Your task to perform on an android device: toggle data saver in the chrome app Image 0: 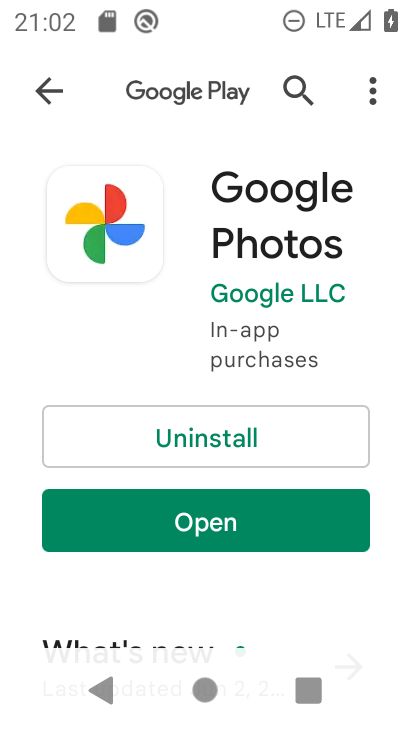
Step 0: press home button
Your task to perform on an android device: toggle data saver in the chrome app Image 1: 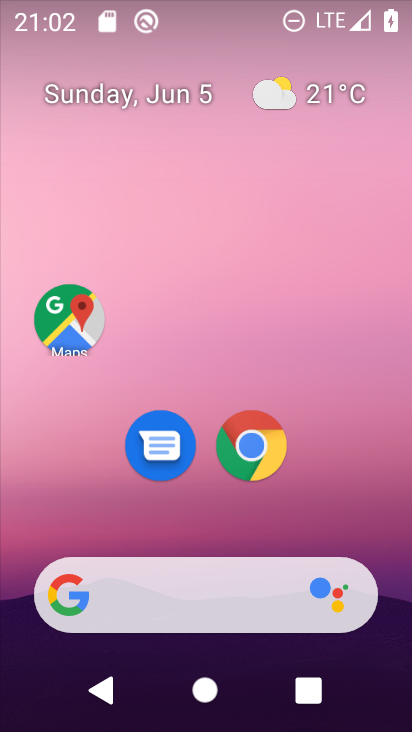
Step 1: click (268, 421)
Your task to perform on an android device: toggle data saver in the chrome app Image 2: 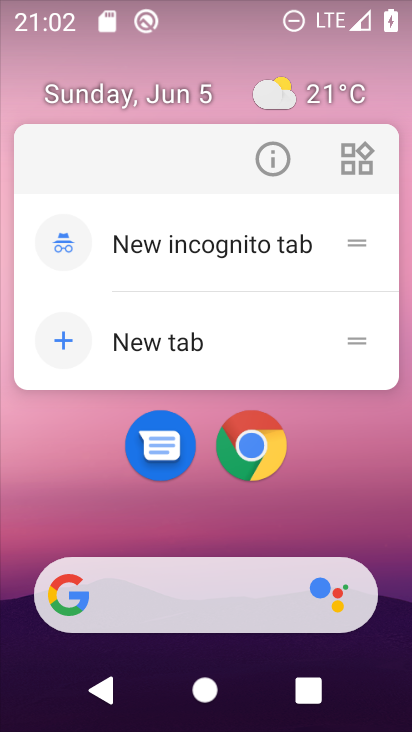
Step 2: click (237, 448)
Your task to perform on an android device: toggle data saver in the chrome app Image 3: 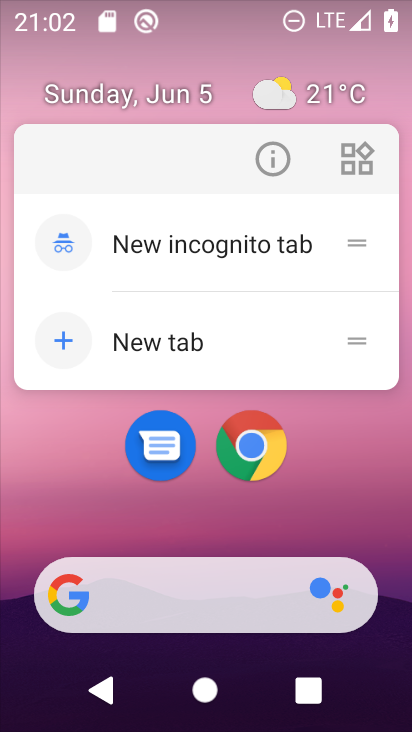
Step 3: click (246, 468)
Your task to perform on an android device: toggle data saver in the chrome app Image 4: 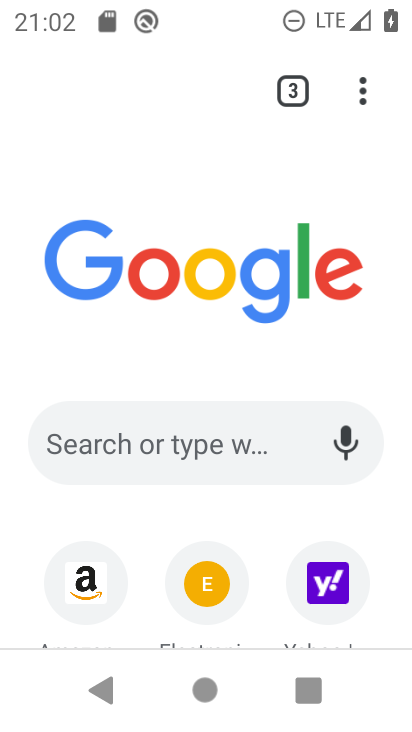
Step 4: click (361, 86)
Your task to perform on an android device: toggle data saver in the chrome app Image 5: 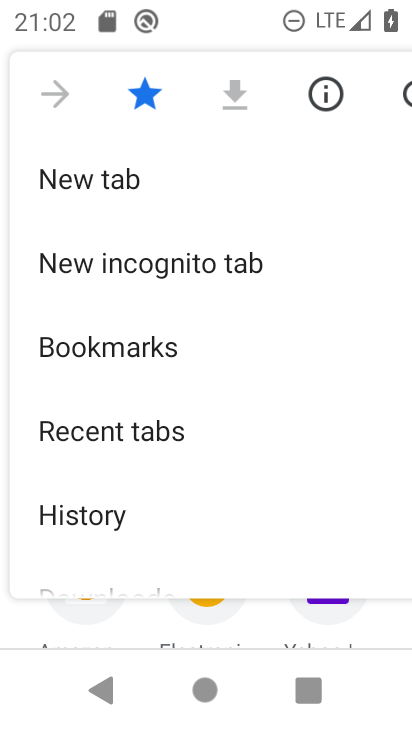
Step 5: drag from (156, 542) to (198, 166)
Your task to perform on an android device: toggle data saver in the chrome app Image 6: 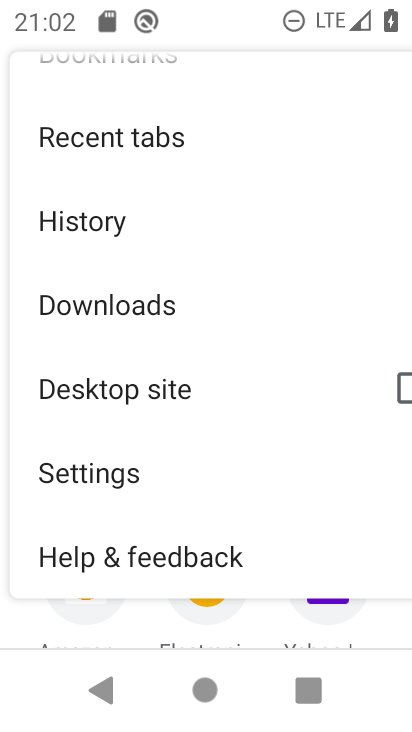
Step 6: click (134, 483)
Your task to perform on an android device: toggle data saver in the chrome app Image 7: 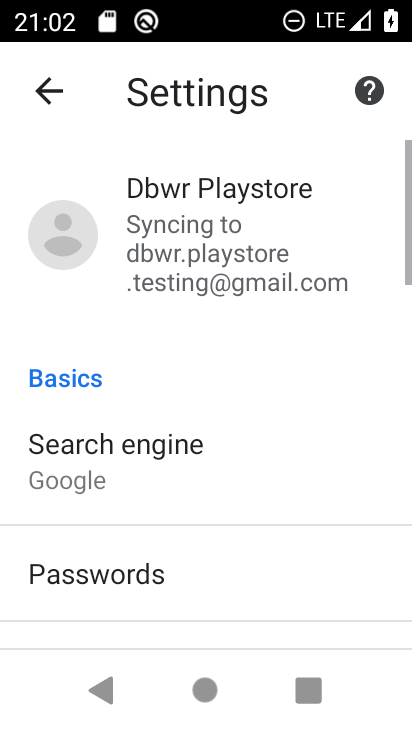
Step 7: drag from (260, 502) to (307, 87)
Your task to perform on an android device: toggle data saver in the chrome app Image 8: 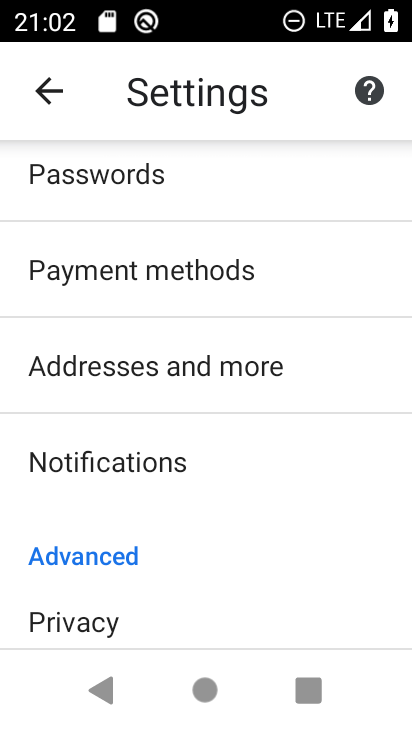
Step 8: drag from (268, 565) to (340, 163)
Your task to perform on an android device: toggle data saver in the chrome app Image 9: 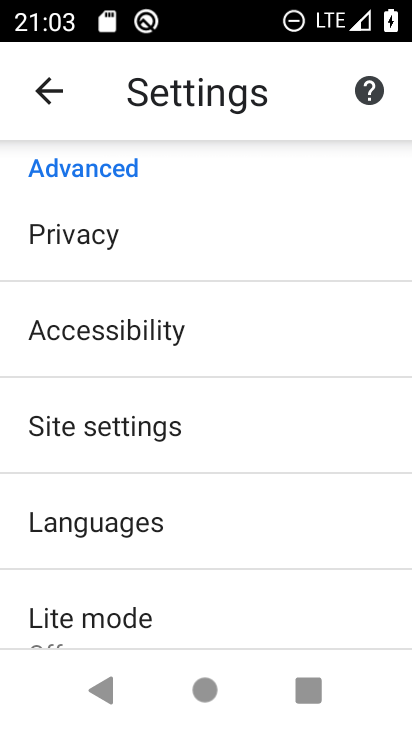
Step 9: click (260, 616)
Your task to perform on an android device: toggle data saver in the chrome app Image 10: 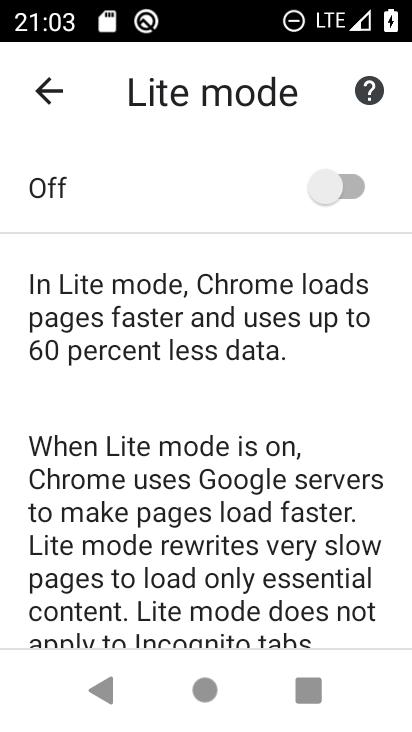
Step 10: click (349, 180)
Your task to perform on an android device: toggle data saver in the chrome app Image 11: 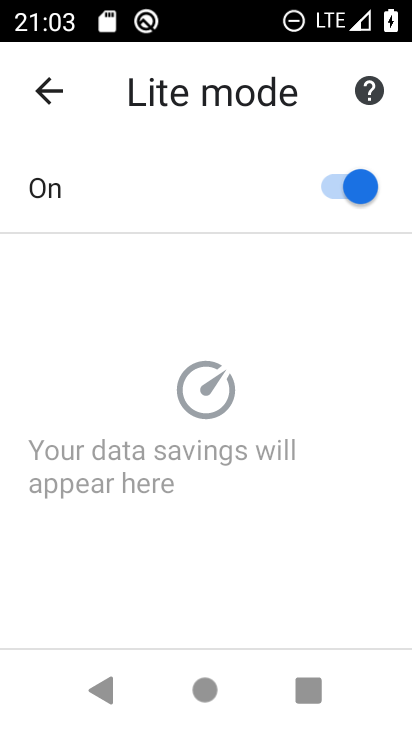
Step 11: task complete